Your task to perform on an android device: turn off data saver in the chrome app Image 0: 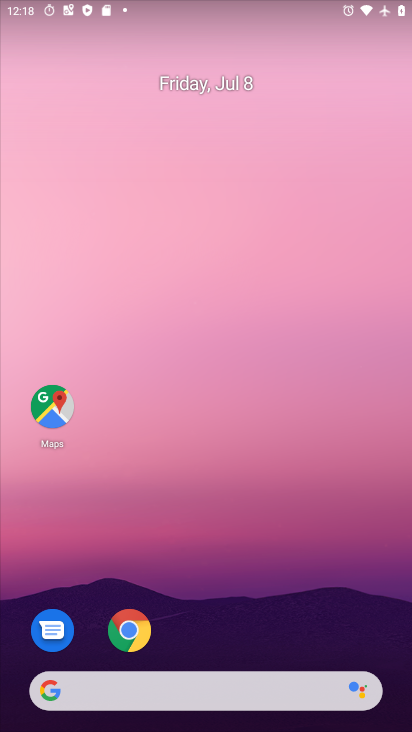
Step 0: click (128, 633)
Your task to perform on an android device: turn off data saver in the chrome app Image 1: 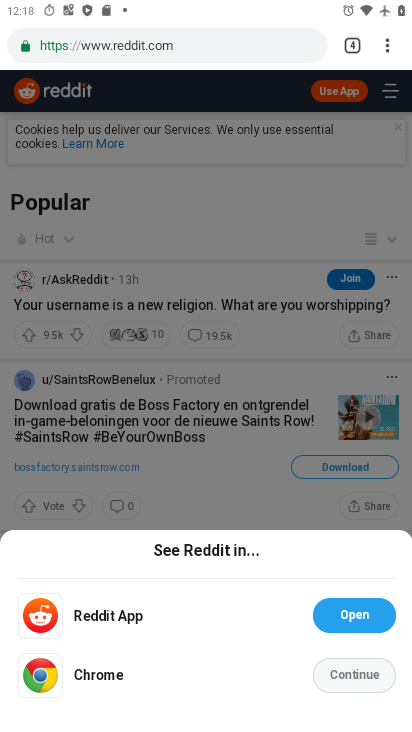
Step 1: click (390, 47)
Your task to perform on an android device: turn off data saver in the chrome app Image 2: 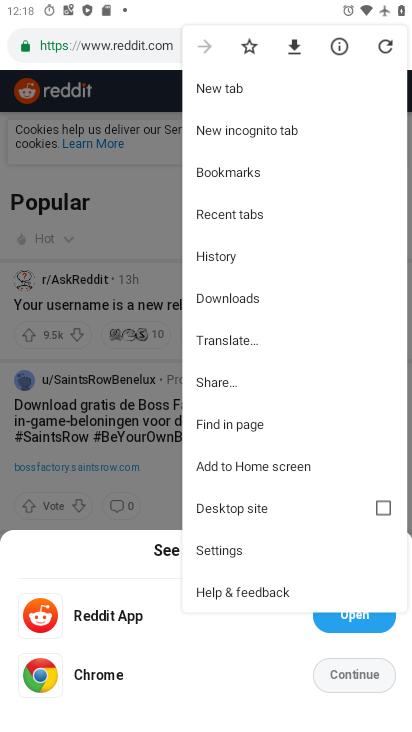
Step 2: click (239, 545)
Your task to perform on an android device: turn off data saver in the chrome app Image 3: 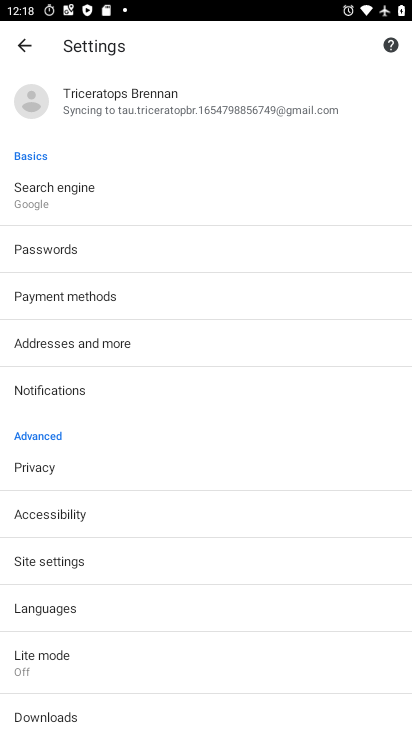
Step 3: click (88, 564)
Your task to perform on an android device: turn off data saver in the chrome app Image 4: 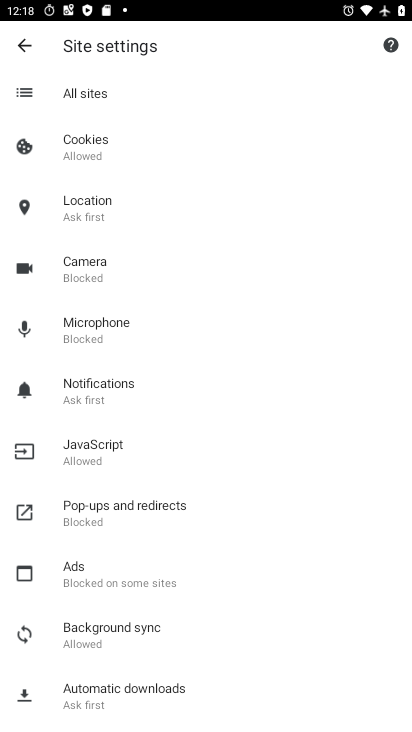
Step 4: click (122, 441)
Your task to perform on an android device: turn off data saver in the chrome app Image 5: 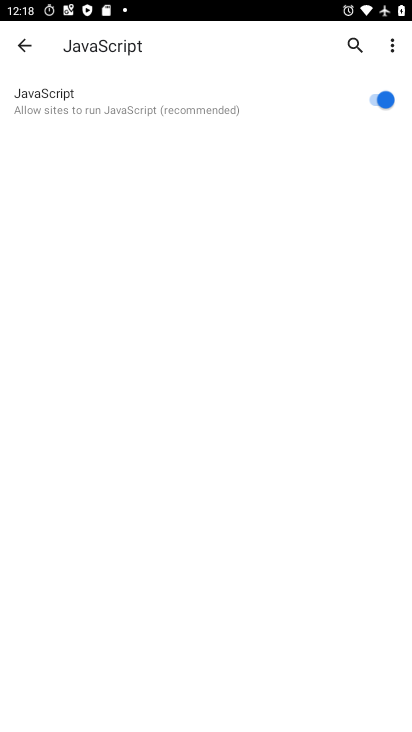
Step 5: click (372, 97)
Your task to perform on an android device: turn off data saver in the chrome app Image 6: 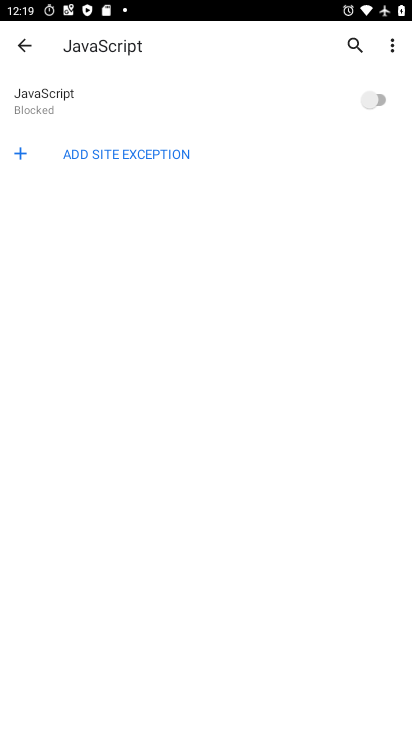
Step 6: task complete